Your task to perform on an android device: turn on data saver in the chrome app Image 0: 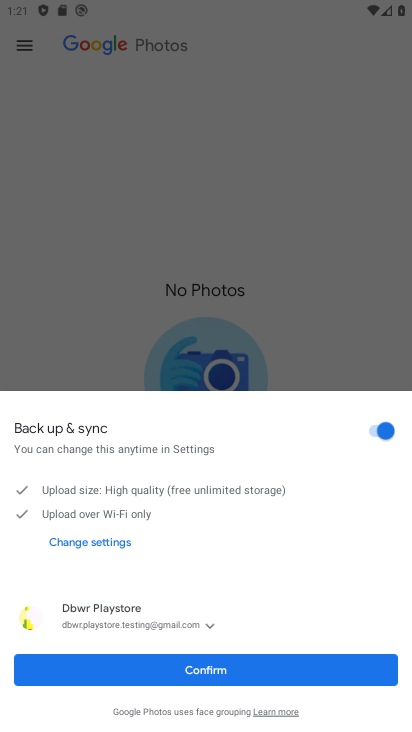
Step 0: press home button
Your task to perform on an android device: turn on data saver in the chrome app Image 1: 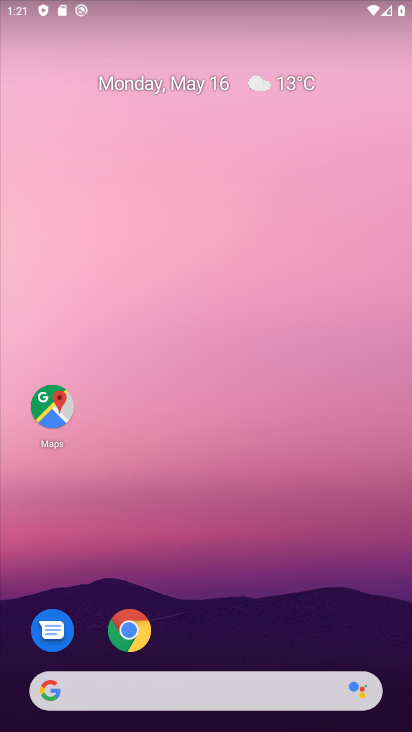
Step 1: click (144, 634)
Your task to perform on an android device: turn on data saver in the chrome app Image 2: 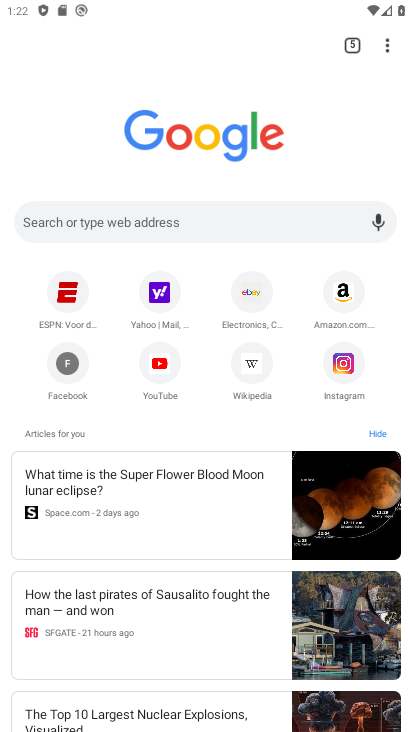
Step 2: click (376, 51)
Your task to perform on an android device: turn on data saver in the chrome app Image 3: 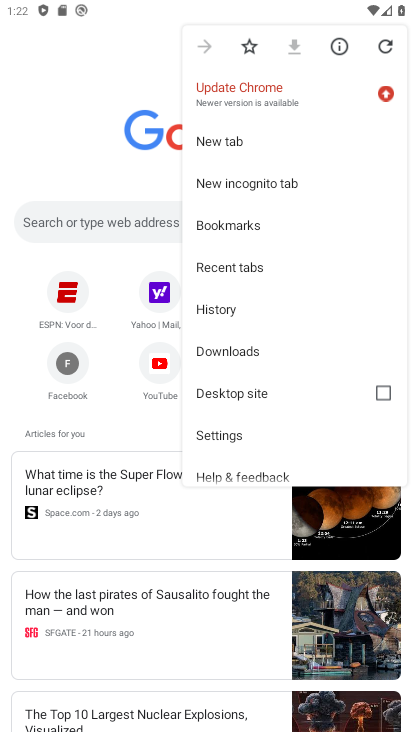
Step 3: click (269, 432)
Your task to perform on an android device: turn on data saver in the chrome app Image 4: 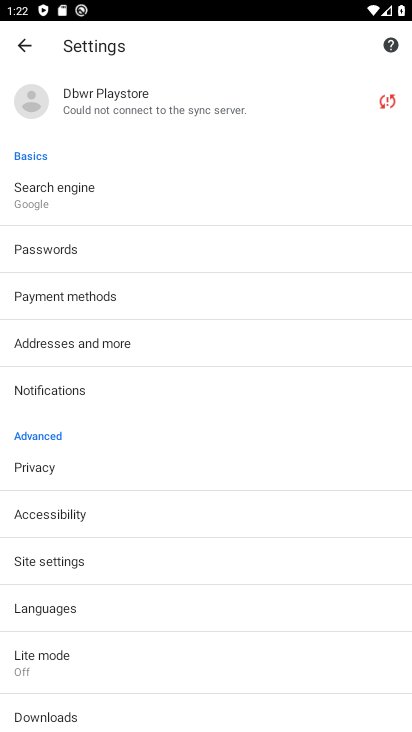
Step 4: drag from (215, 638) to (256, 300)
Your task to perform on an android device: turn on data saver in the chrome app Image 5: 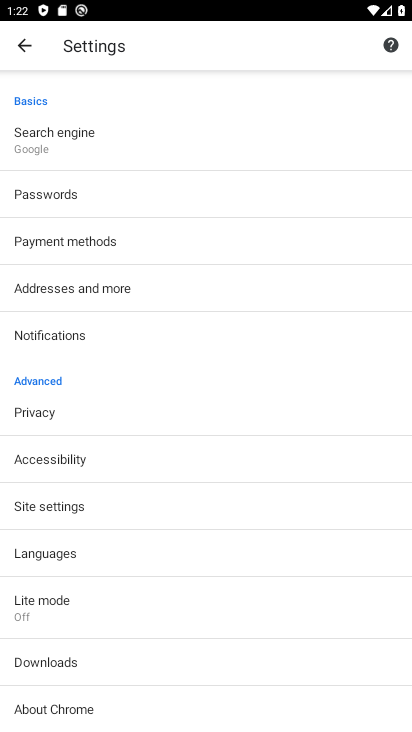
Step 5: click (77, 502)
Your task to perform on an android device: turn on data saver in the chrome app Image 6: 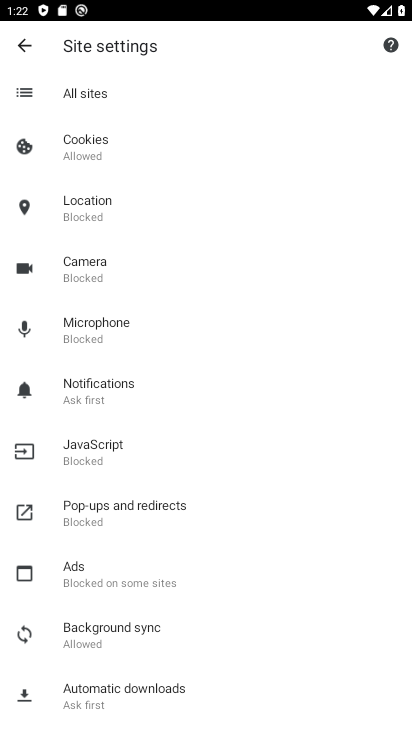
Step 6: drag from (182, 580) to (172, 261)
Your task to perform on an android device: turn on data saver in the chrome app Image 7: 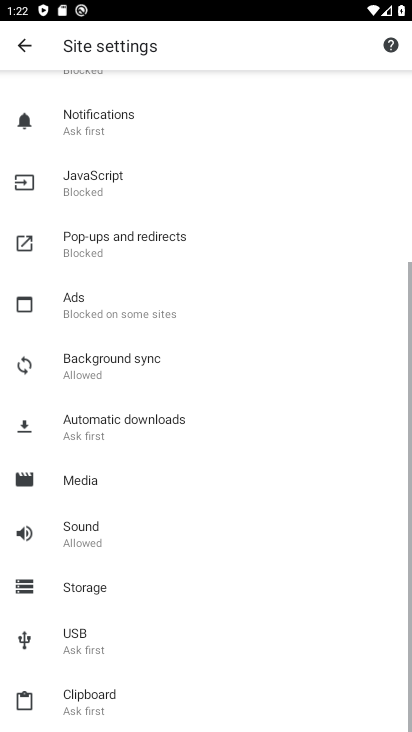
Step 7: drag from (284, 559) to (231, 196)
Your task to perform on an android device: turn on data saver in the chrome app Image 8: 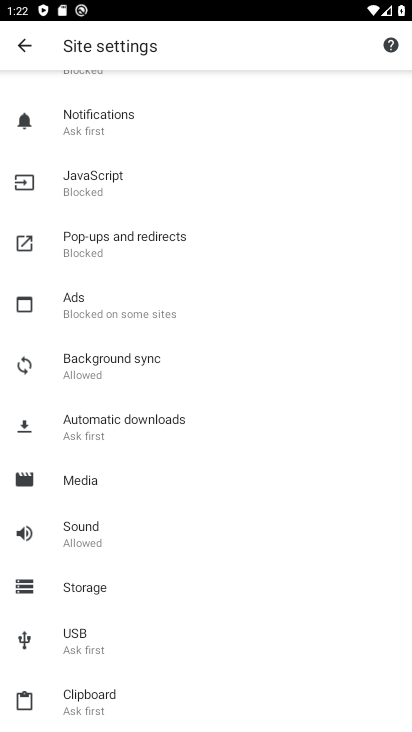
Step 8: press back button
Your task to perform on an android device: turn on data saver in the chrome app Image 9: 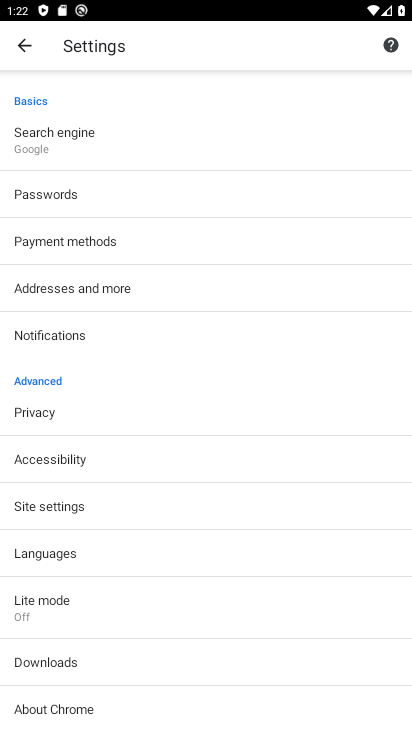
Step 9: click (88, 448)
Your task to perform on an android device: turn on data saver in the chrome app Image 10: 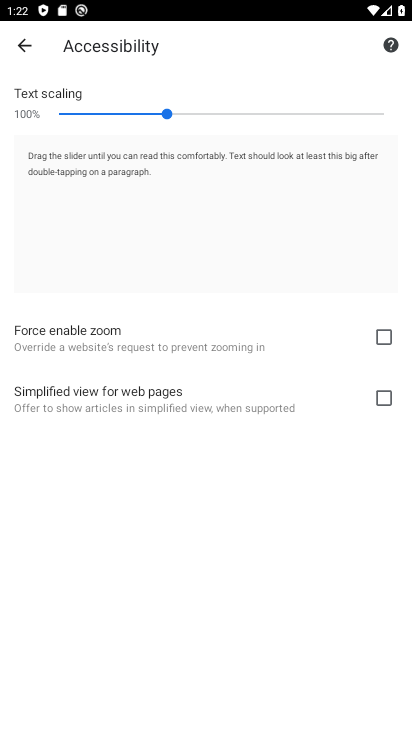
Step 10: press back button
Your task to perform on an android device: turn on data saver in the chrome app Image 11: 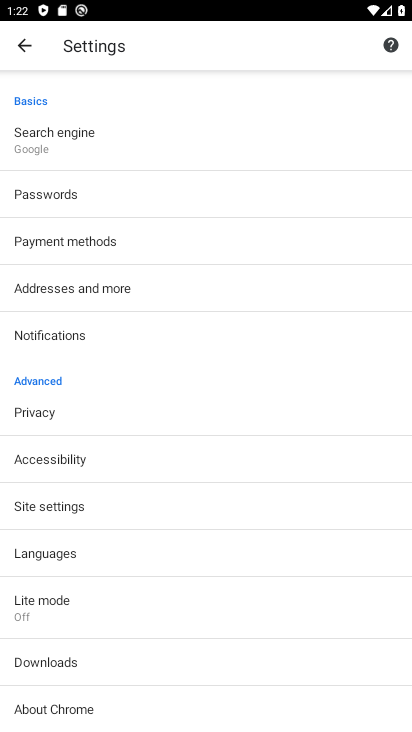
Step 11: click (191, 411)
Your task to perform on an android device: turn on data saver in the chrome app Image 12: 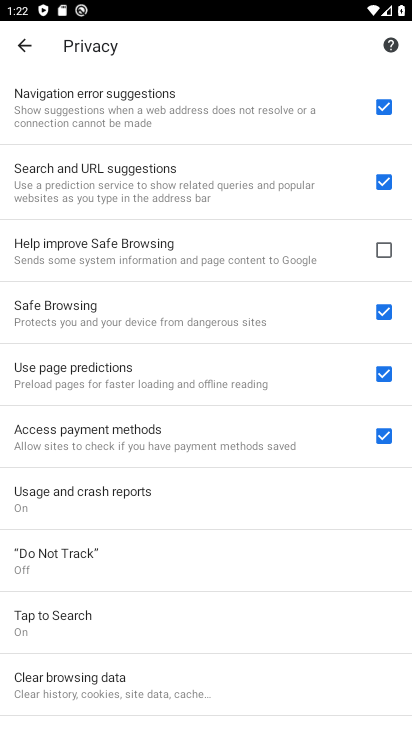
Step 12: press back button
Your task to perform on an android device: turn on data saver in the chrome app Image 13: 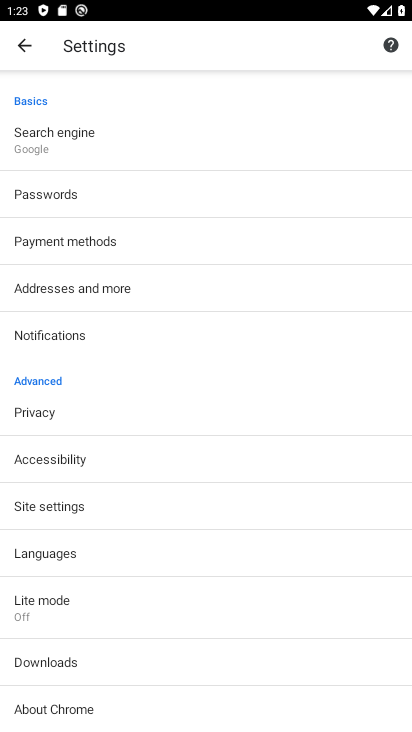
Step 13: click (92, 710)
Your task to perform on an android device: turn on data saver in the chrome app Image 14: 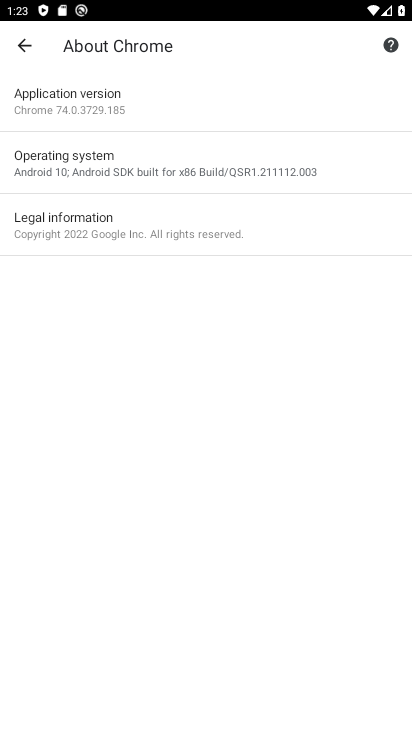
Step 14: task complete